Your task to perform on an android device: Toggle the flashlight Image 0: 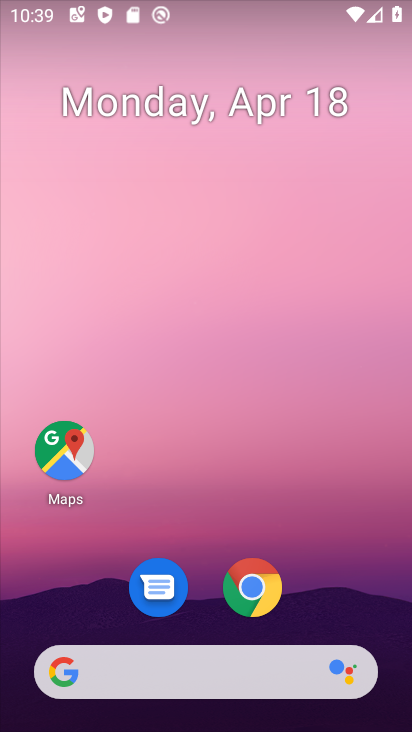
Step 0: drag from (351, 528) to (350, 67)
Your task to perform on an android device: Toggle the flashlight Image 1: 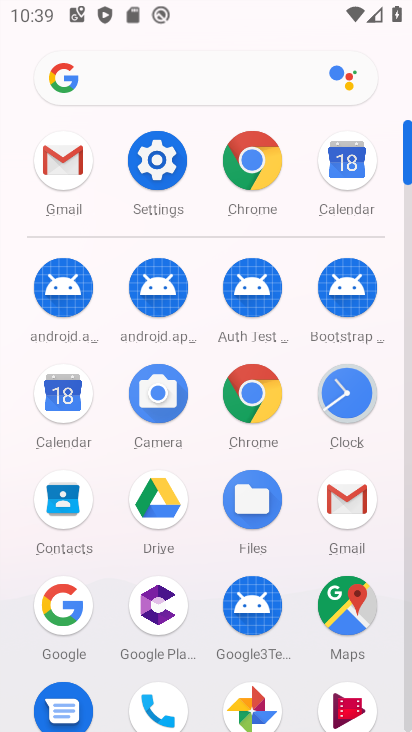
Step 1: click (168, 158)
Your task to perform on an android device: Toggle the flashlight Image 2: 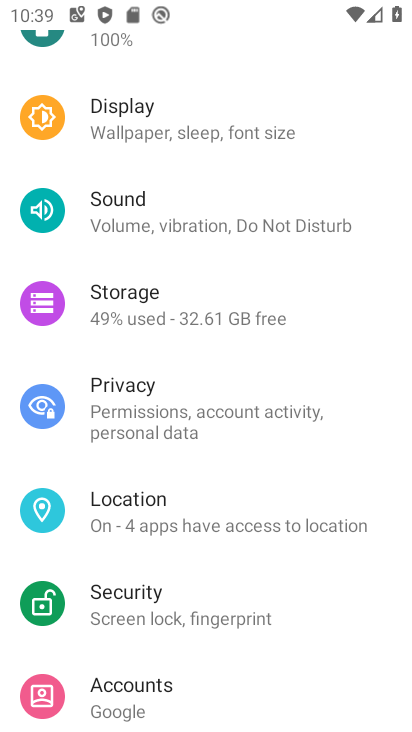
Step 2: drag from (218, 97) to (266, 597)
Your task to perform on an android device: Toggle the flashlight Image 3: 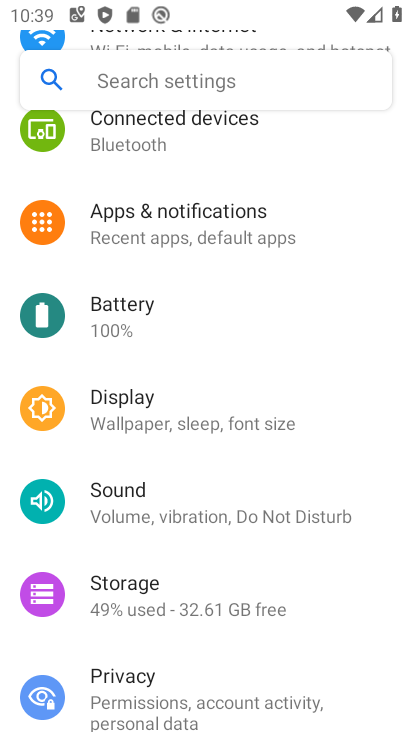
Step 3: click (231, 62)
Your task to perform on an android device: Toggle the flashlight Image 4: 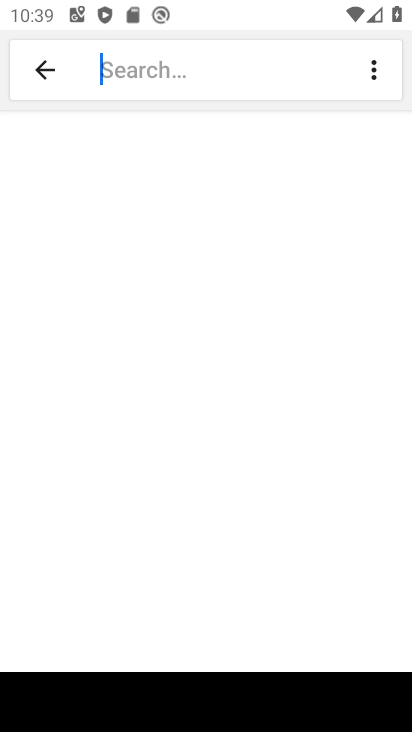
Step 4: type "flashlight"
Your task to perform on an android device: Toggle the flashlight Image 5: 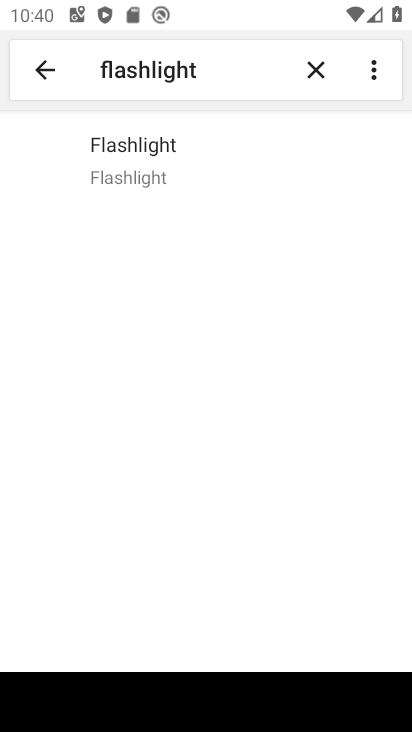
Step 5: click (159, 155)
Your task to perform on an android device: Toggle the flashlight Image 6: 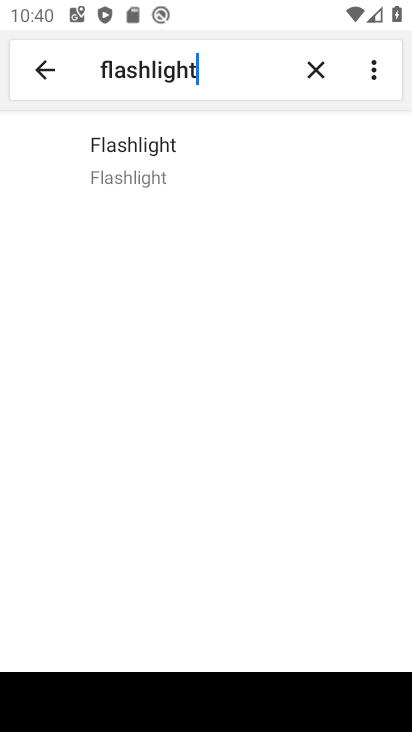
Step 6: task complete